Your task to perform on an android device: Go to Wikipedia Image 0: 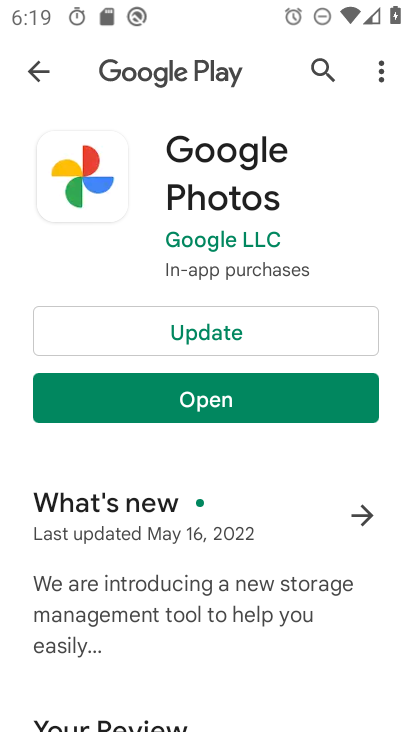
Step 0: press back button
Your task to perform on an android device: Go to Wikipedia Image 1: 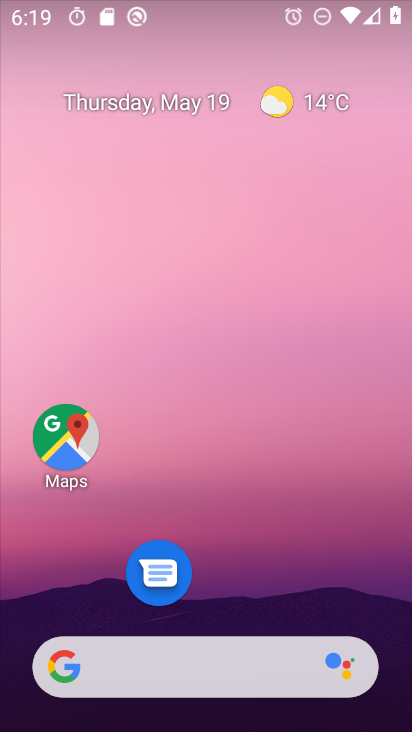
Step 1: drag from (232, 567) to (122, 23)
Your task to perform on an android device: Go to Wikipedia Image 2: 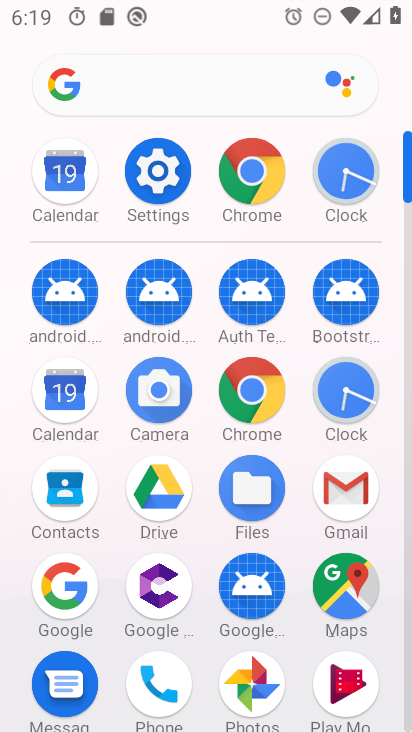
Step 2: click (270, 208)
Your task to perform on an android device: Go to Wikipedia Image 3: 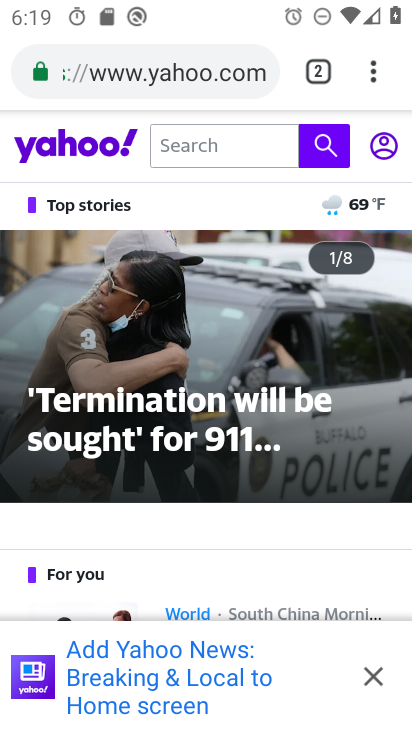
Step 3: task complete